Your task to perform on an android device: find snoozed emails in the gmail app Image 0: 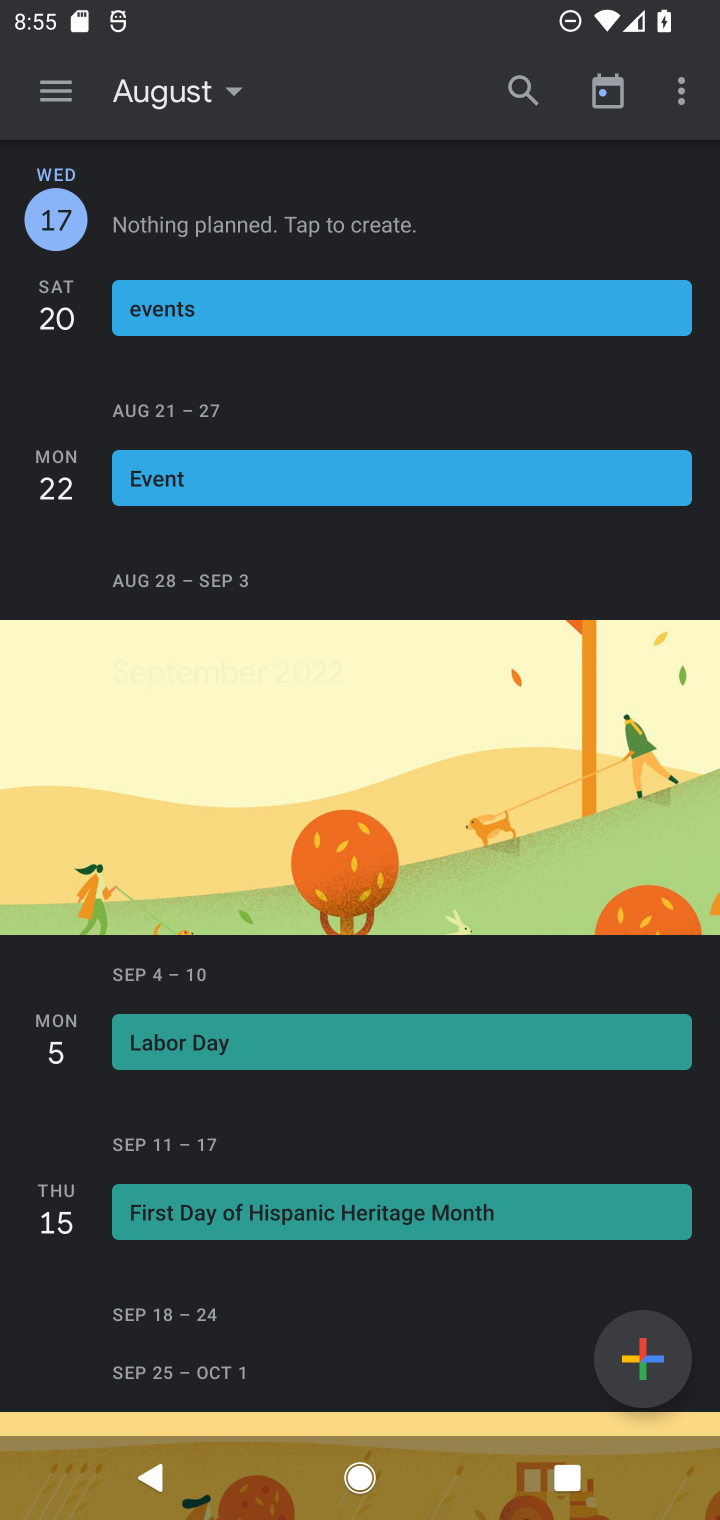
Step 0: press home button
Your task to perform on an android device: find snoozed emails in the gmail app Image 1: 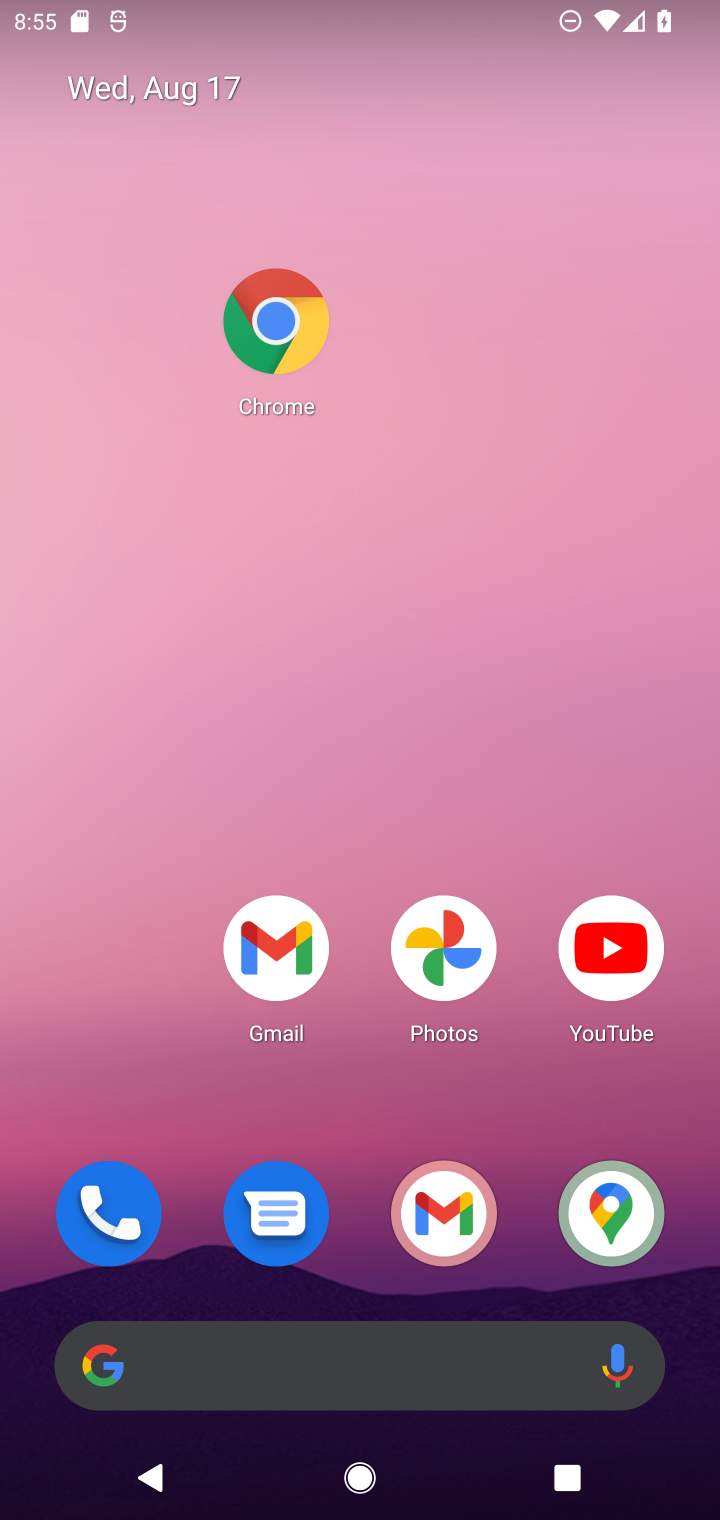
Step 1: click (299, 957)
Your task to perform on an android device: find snoozed emails in the gmail app Image 2: 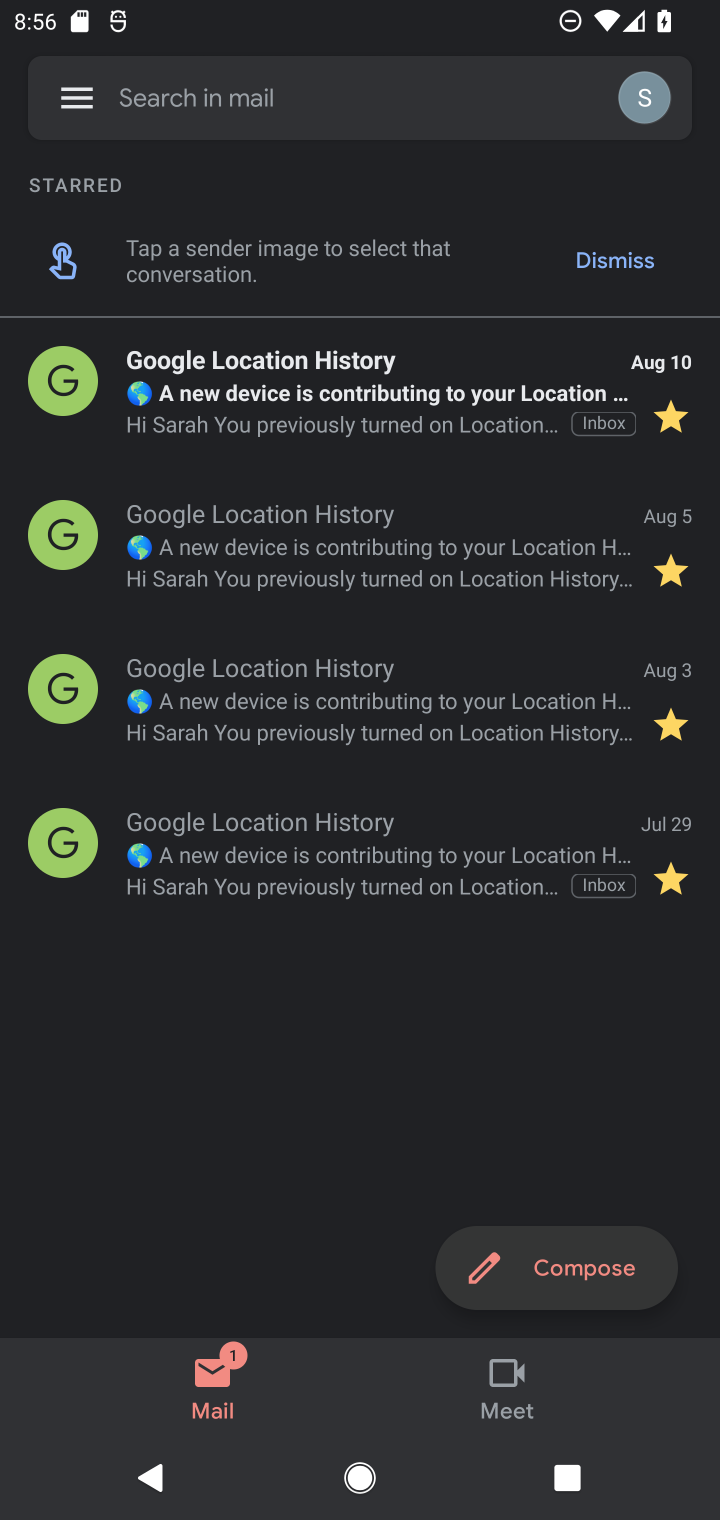
Step 2: click (84, 106)
Your task to perform on an android device: find snoozed emails in the gmail app Image 3: 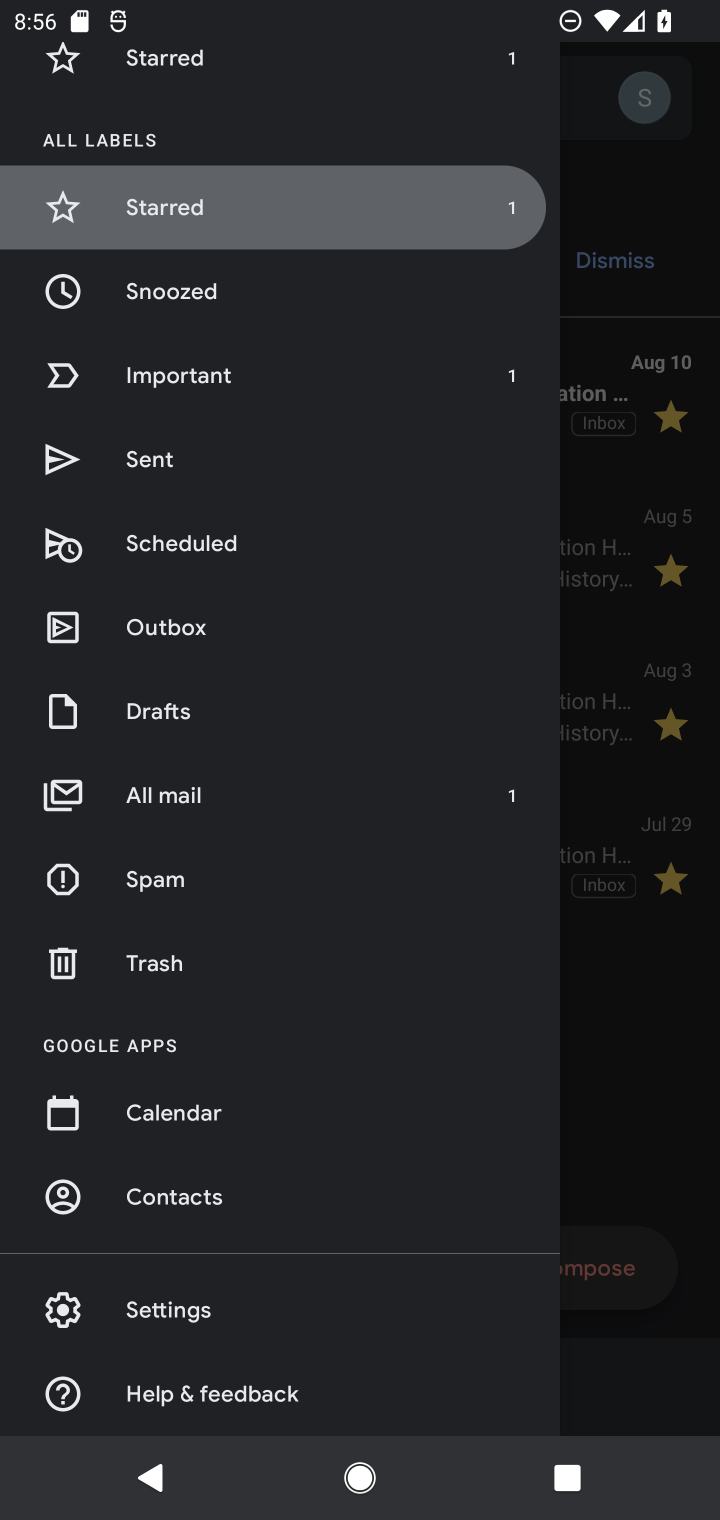
Step 3: drag from (244, 1142) to (244, 495)
Your task to perform on an android device: find snoozed emails in the gmail app Image 4: 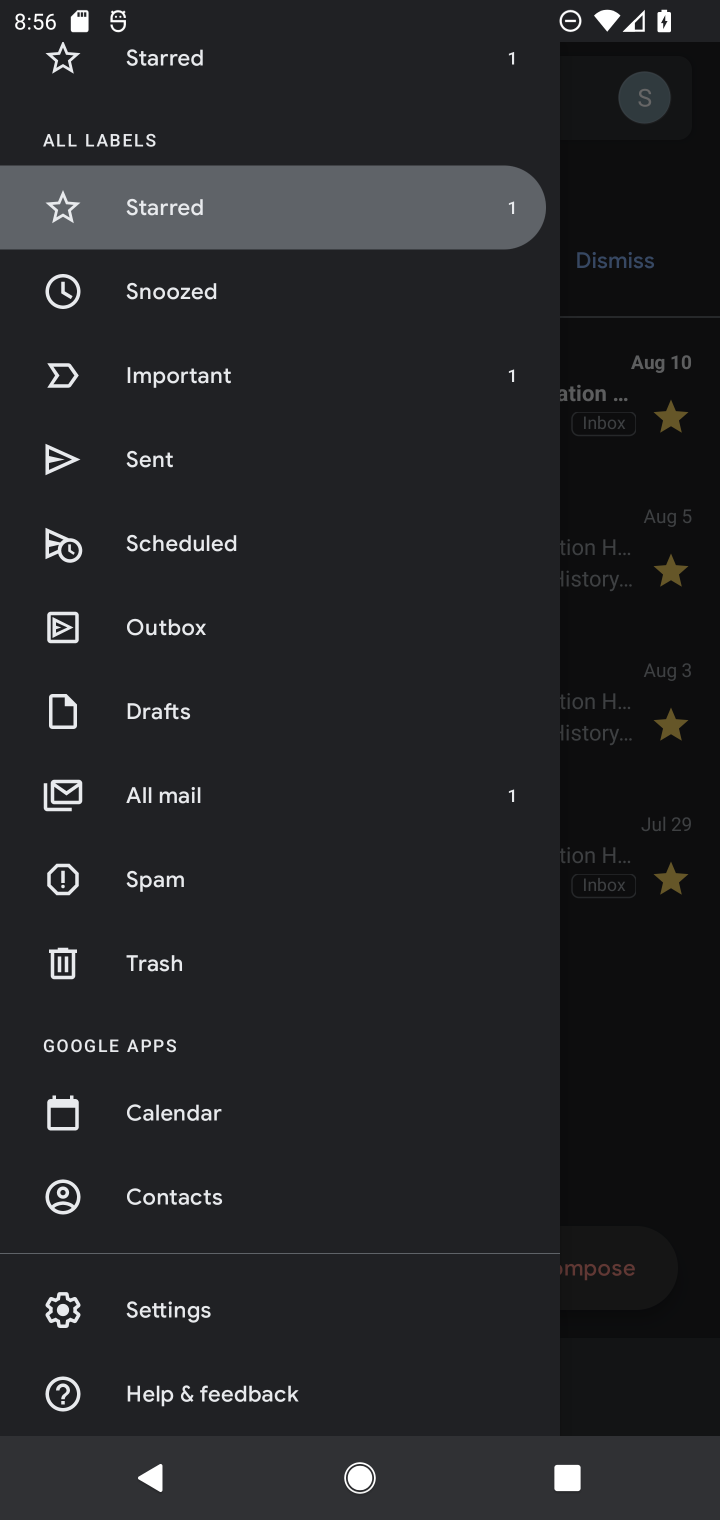
Step 4: click (142, 304)
Your task to perform on an android device: find snoozed emails in the gmail app Image 5: 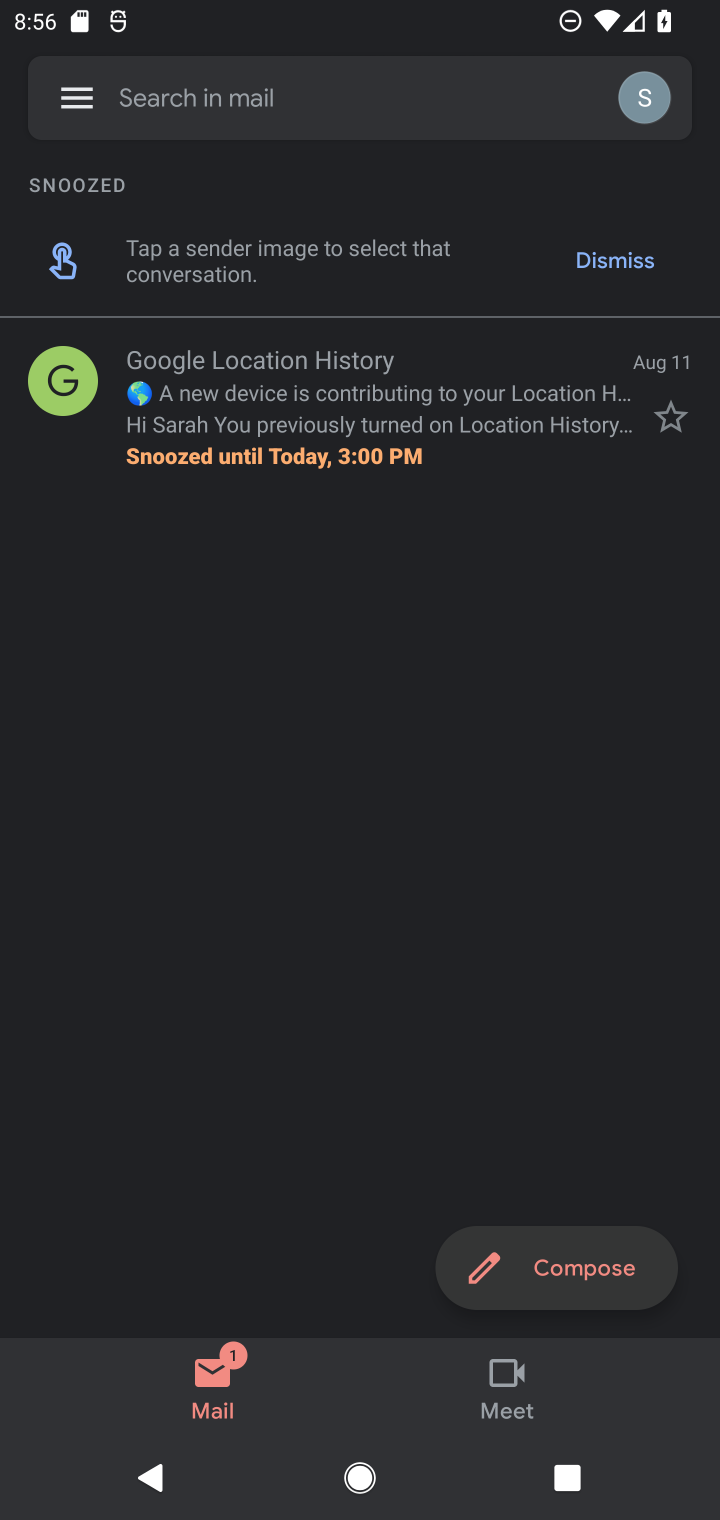
Step 5: task complete